Your task to perform on an android device: see tabs open on other devices in the chrome app Image 0: 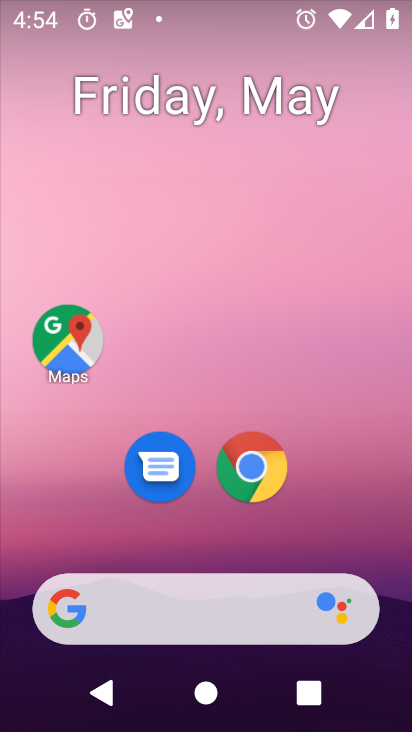
Step 0: drag from (338, 484) to (220, 51)
Your task to perform on an android device: see tabs open on other devices in the chrome app Image 1: 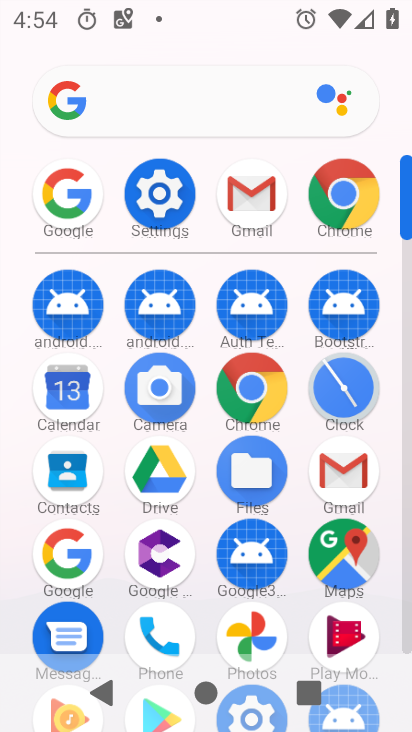
Step 1: click (278, 377)
Your task to perform on an android device: see tabs open on other devices in the chrome app Image 2: 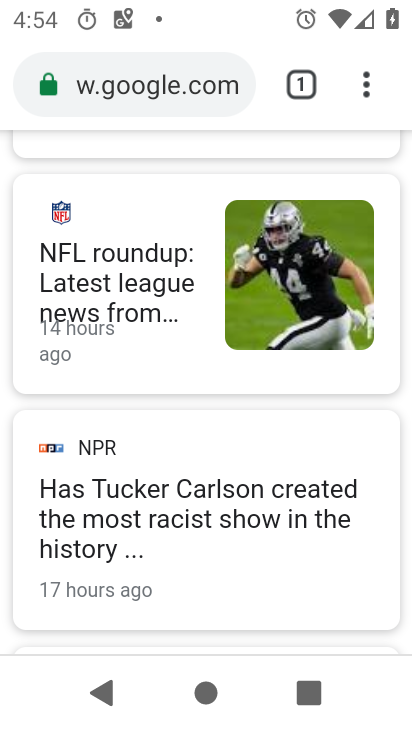
Step 2: task complete